Your task to perform on an android device: refresh tabs in the chrome app Image 0: 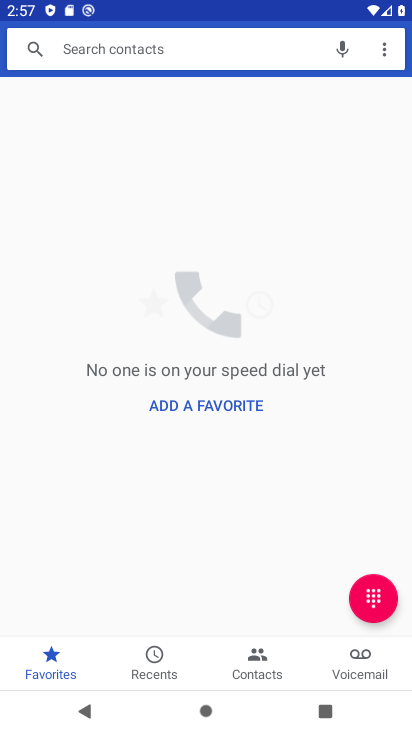
Step 0: press home button
Your task to perform on an android device: refresh tabs in the chrome app Image 1: 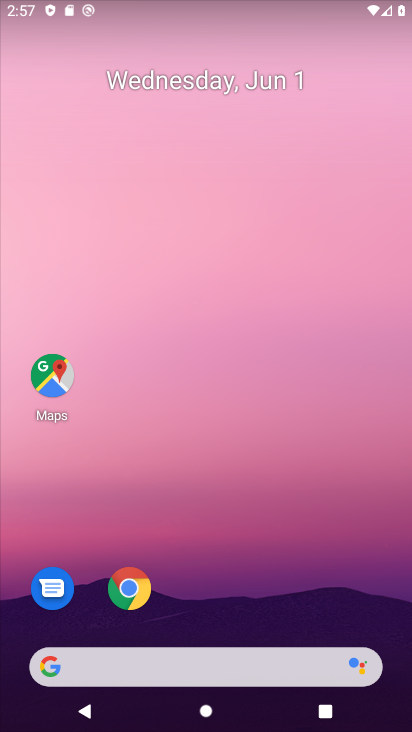
Step 1: click (117, 593)
Your task to perform on an android device: refresh tabs in the chrome app Image 2: 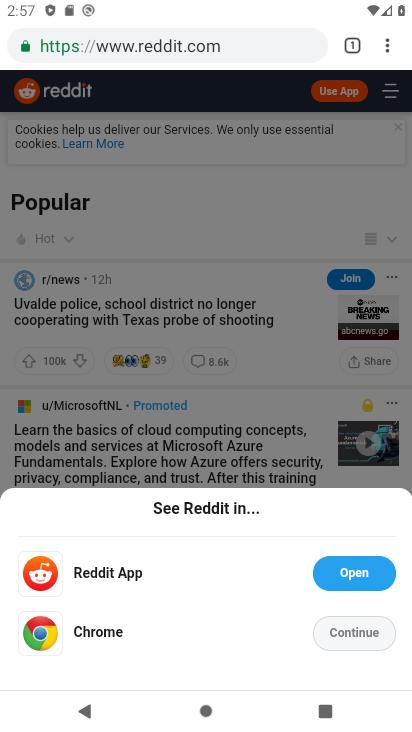
Step 2: click (396, 51)
Your task to perform on an android device: refresh tabs in the chrome app Image 3: 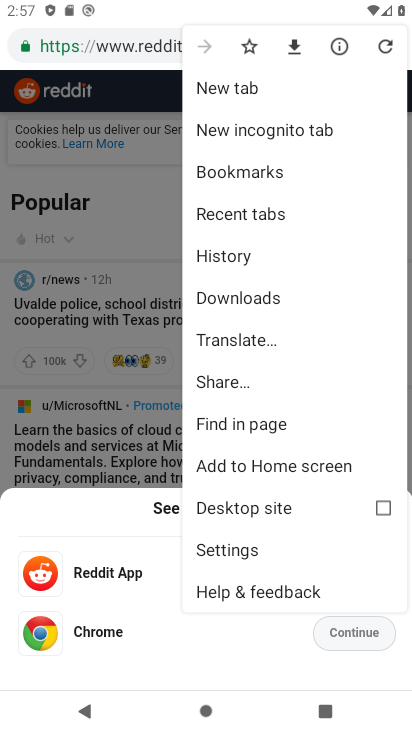
Step 3: click (389, 43)
Your task to perform on an android device: refresh tabs in the chrome app Image 4: 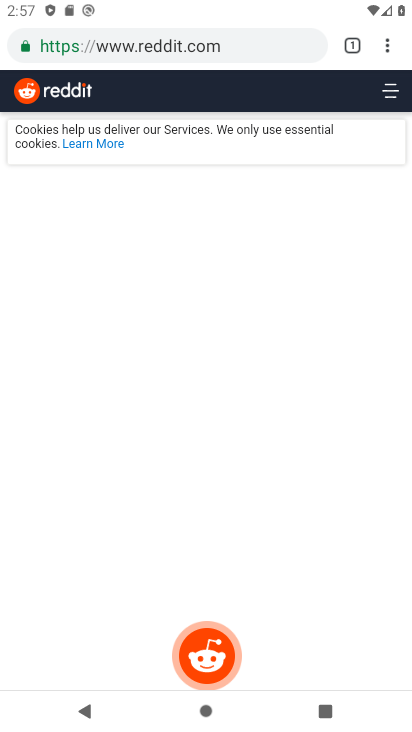
Step 4: task complete